Your task to perform on an android device: Do I have any events this weekend? Image 0: 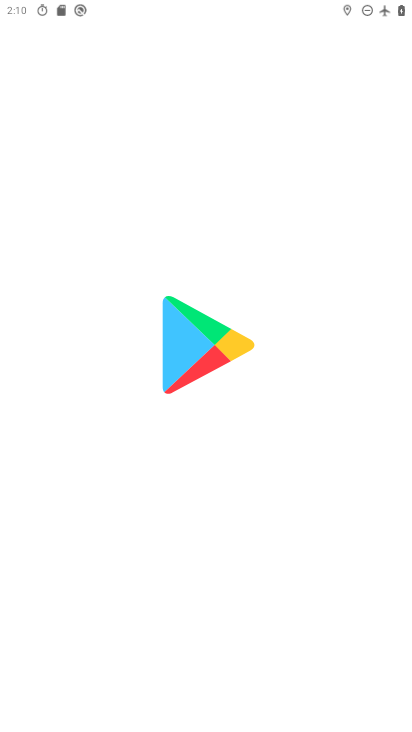
Step 0: drag from (263, 530) to (249, 137)
Your task to perform on an android device: Do I have any events this weekend? Image 1: 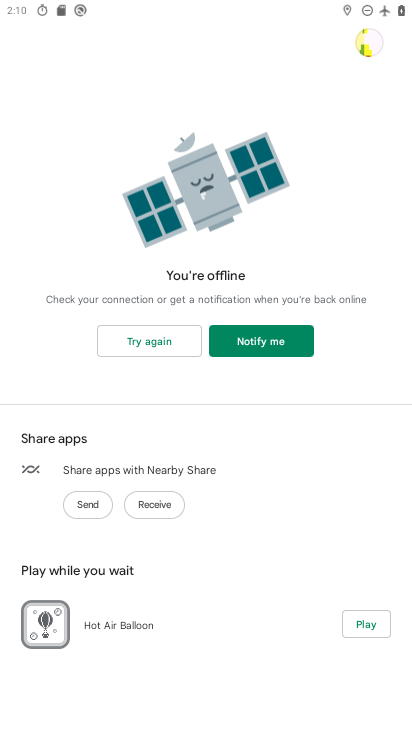
Step 1: press home button
Your task to perform on an android device: Do I have any events this weekend? Image 2: 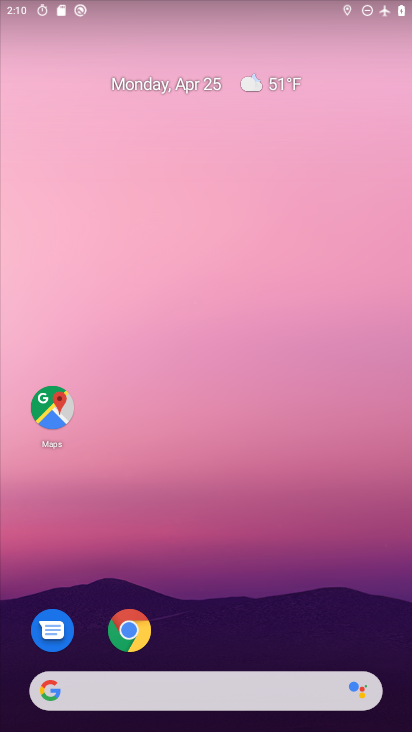
Step 2: drag from (310, 488) to (317, 66)
Your task to perform on an android device: Do I have any events this weekend? Image 3: 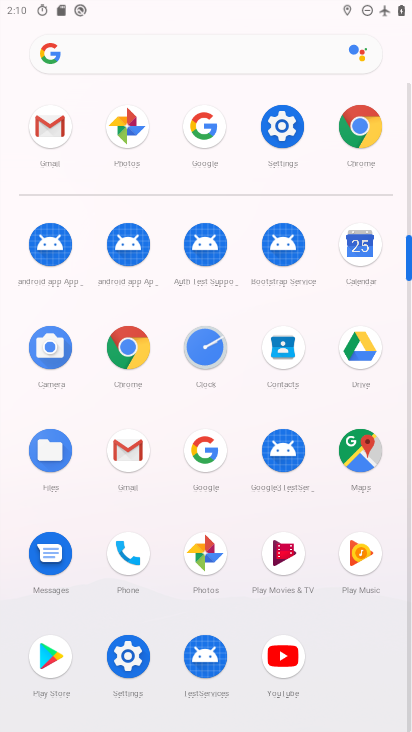
Step 3: click (365, 246)
Your task to perform on an android device: Do I have any events this weekend? Image 4: 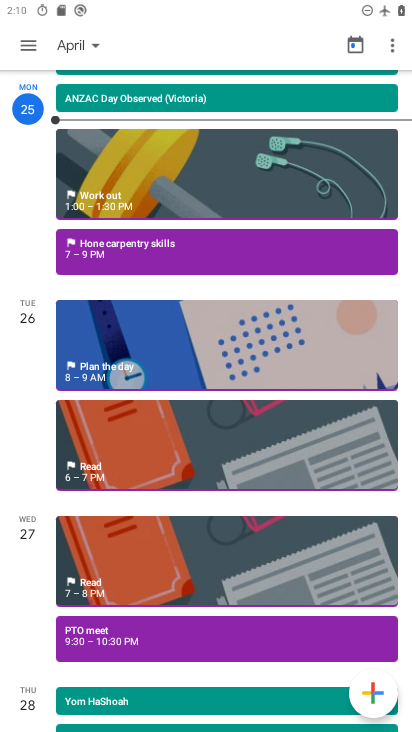
Step 4: click (63, 31)
Your task to perform on an android device: Do I have any events this weekend? Image 5: 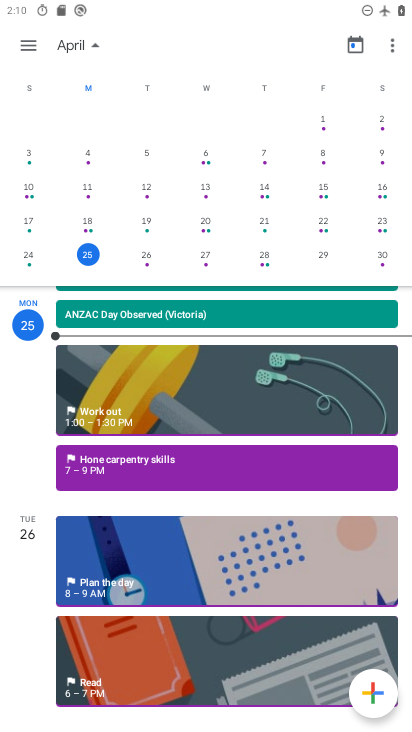
Step 5: task complete